Your task to perform on an android device: Open accessibility settings Image 0: 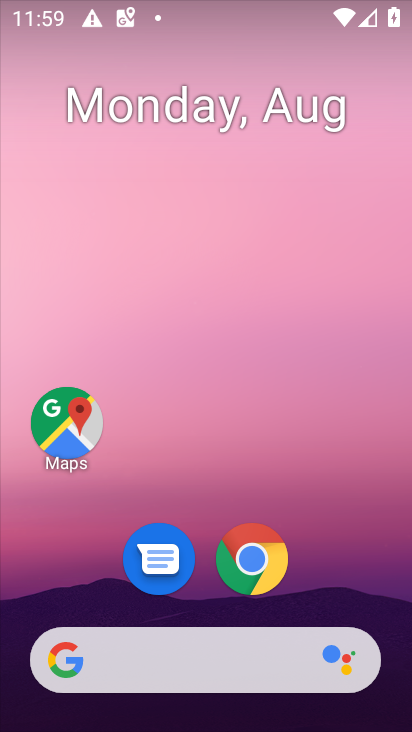
Step 0: drag from (208, 627) to (243, 23)
Your task to perform on an android device: Open accessibility settings Image 1: 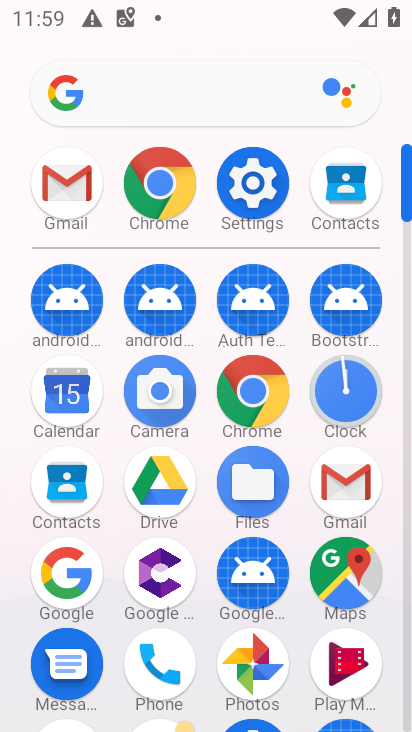
Step 1: click (253, 199)
Your task to perform on an android device: Open accessibility settings Image 2: 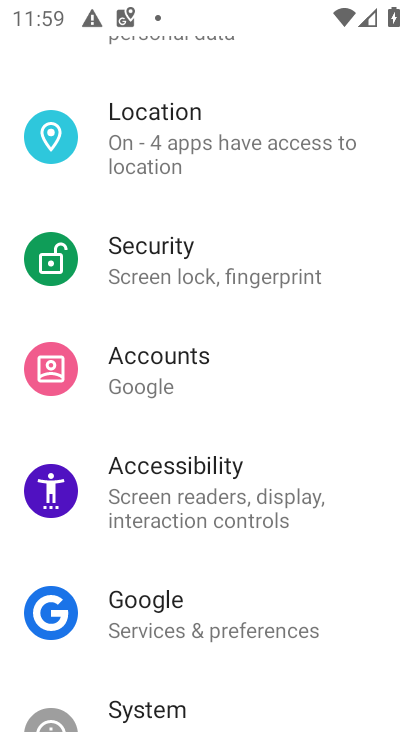
Step 2: drag from (256, 216) to (257, 301)
Your task to perform on an android device: Open accessibility settings Image 3: 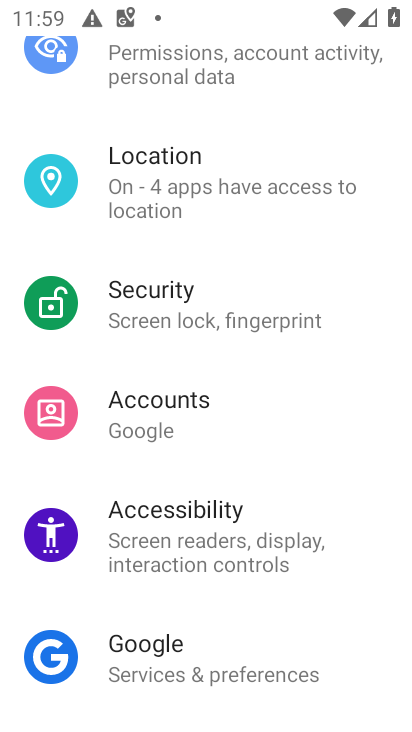
Step 3: click (169, 536)
Your task to perform on an android device: Open accessibility settings Image 4: 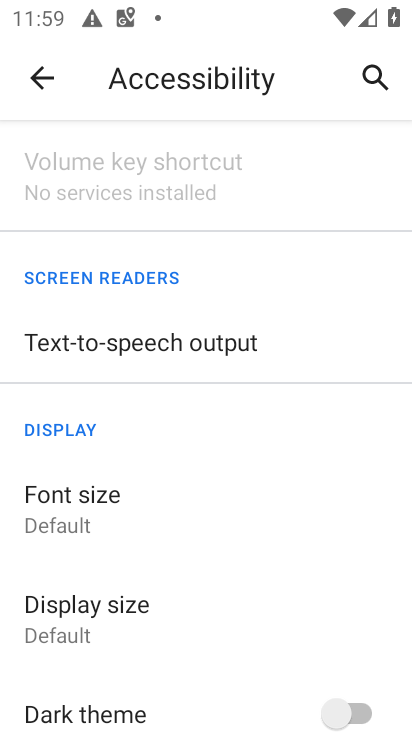
Step 4: task complete